Your task to perform on an android device: Search for vegetarian restaurants on Maps Image 0: 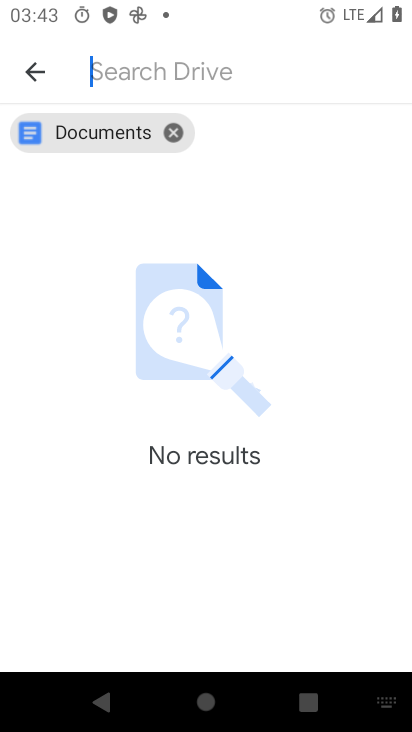
Step 0: click (299, 501)
Your task to perform on an android device: Search for vegetarian restaurants on Maps Image 1: 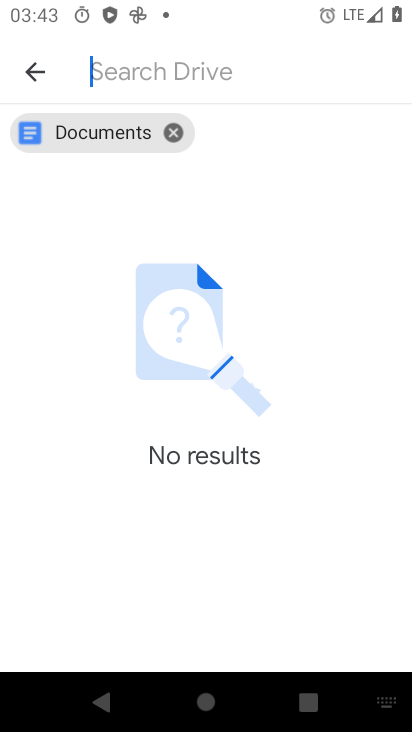
Step 1: press home button
Your task to perform on an android device: Search for vegetarian restaurants on Maps Image 2: 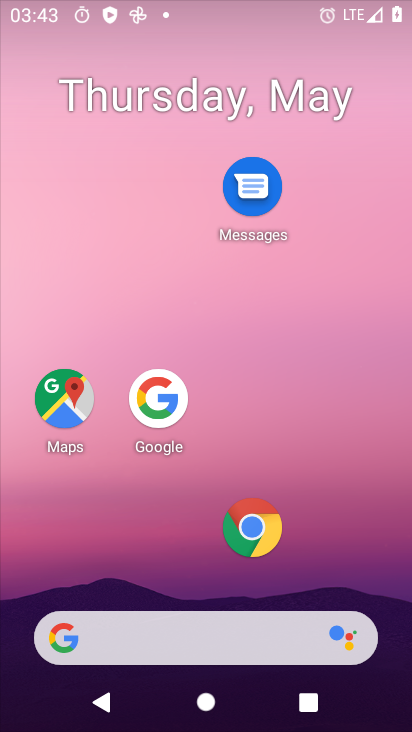
Step 2: drag from (206, 565) to (224, 225)
Your task to perform on an android device: Search for vegetarian restaurants on Maps Image 3: 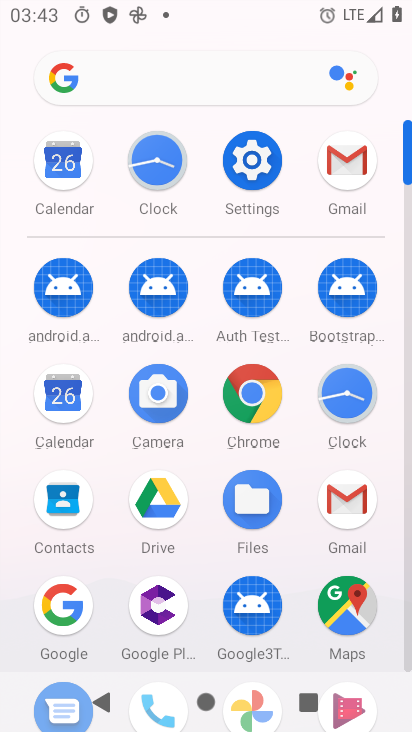
Step 3: click (351, 603)
Your task to perform on an android device: Search for vegetarian restaurants on Maps Image 4: 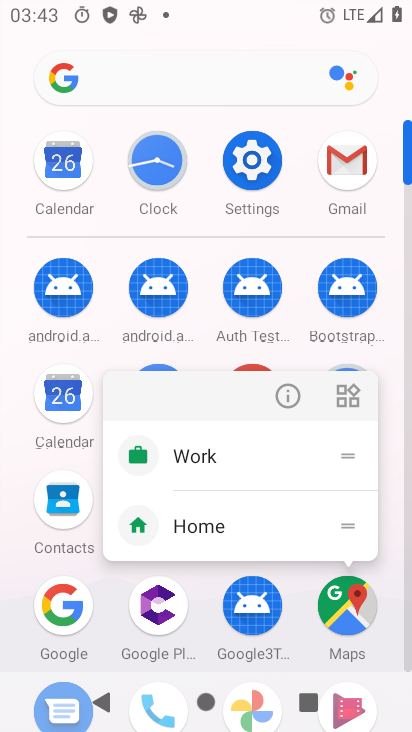
Step 4: click (285, 396)
Your task to perform on an android device: Search for vegetarian restaurants on Maps Image 5: 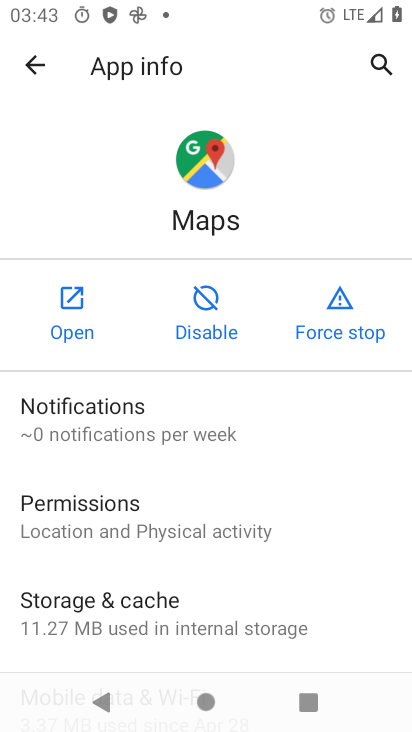
Step 5: click (52, 304)
Your task to perform on an android device: Search for vegetarian restaurants on Maps Image 6: 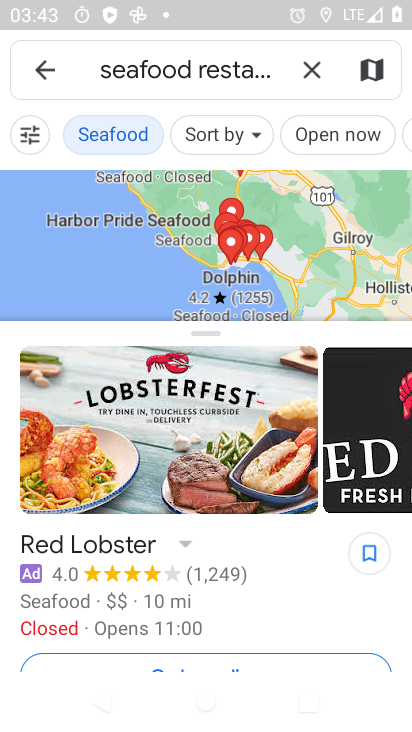
Step 6: click (301, 76)
Your task to perform on an android device: Search for vegetarian restaurants on Maps Image 7: 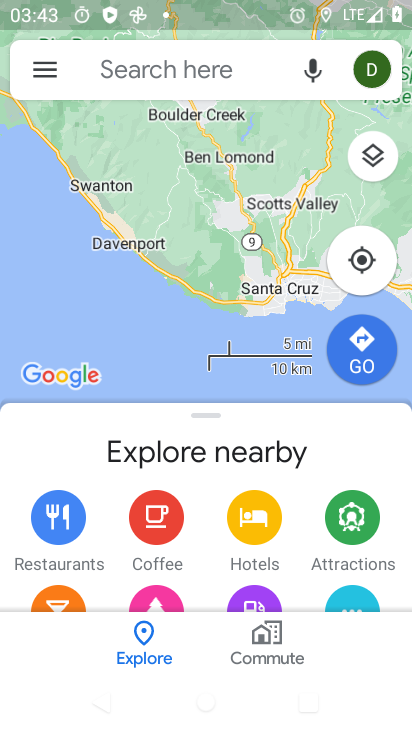
Step 7: click (119, 80)
Your task to perform on an android device: Search for vegetarian restaurants on Maps Image 8: 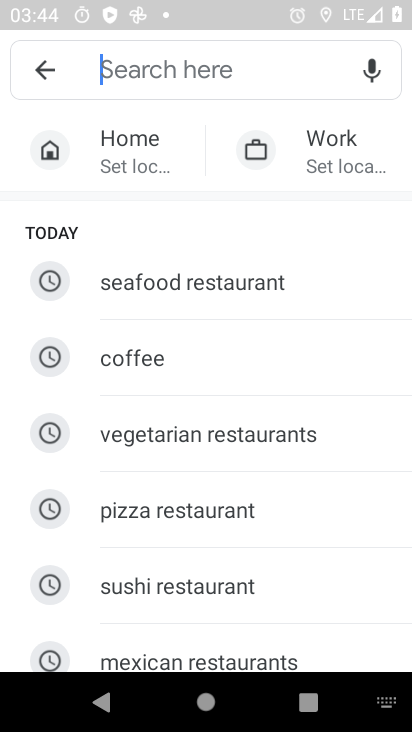
Step 8: click (186, 432)
Your task to perform on an android device: Search for vegetarian restaurants on Maps Image 9: 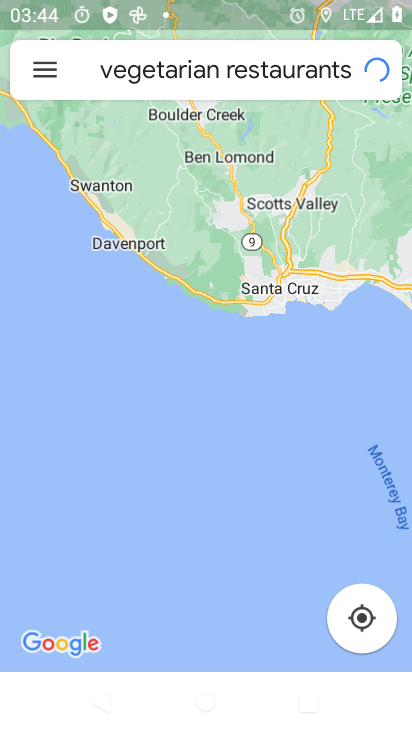
Step 9: task complete